Your task to perform on an android device: Find coffee shops on Maps Image 0: 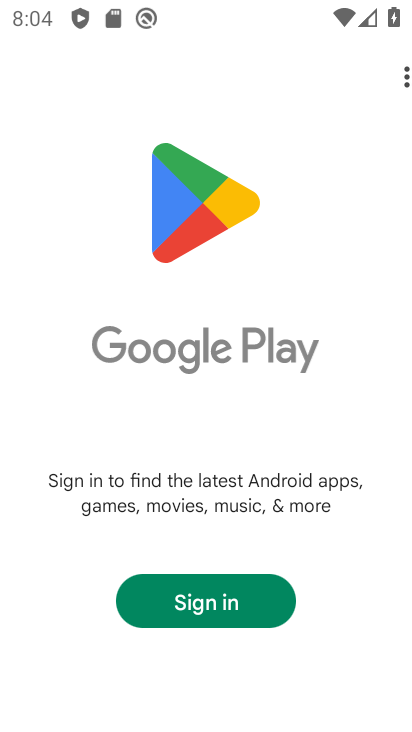
Step 0: press back button
Your task to perform on an android device: Find coffee shops on Maps Image 1: 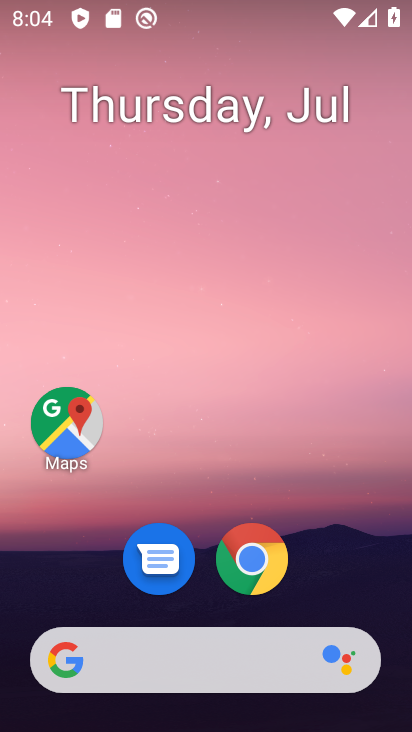
Step 1: click (69, 437)
Your task to perform on an android device: Find coffee shops on Maps Image 2: 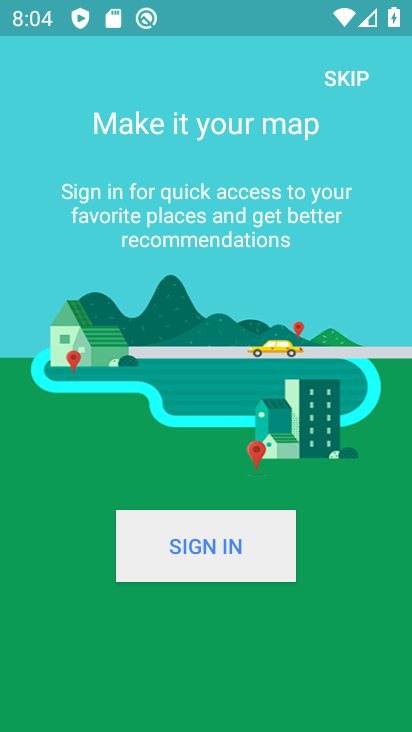
Step 2: click (352, 84)
Your task to perform on an android device: Find coffee shops on Maps Image 3: 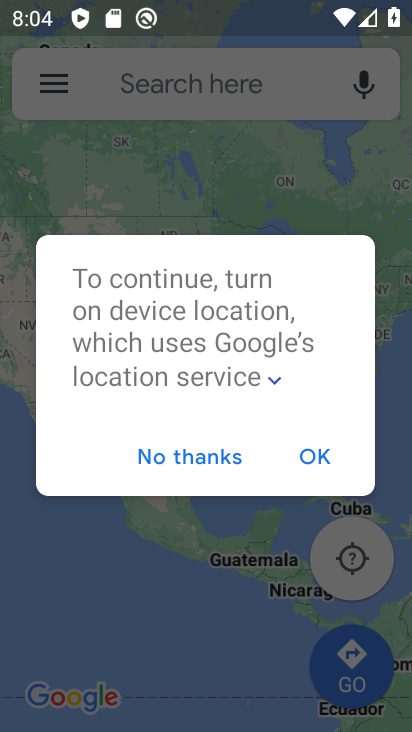
Step 3: click (187, 448)
Your task to perform on an android device: Find coffee shops on Maps Image 4: 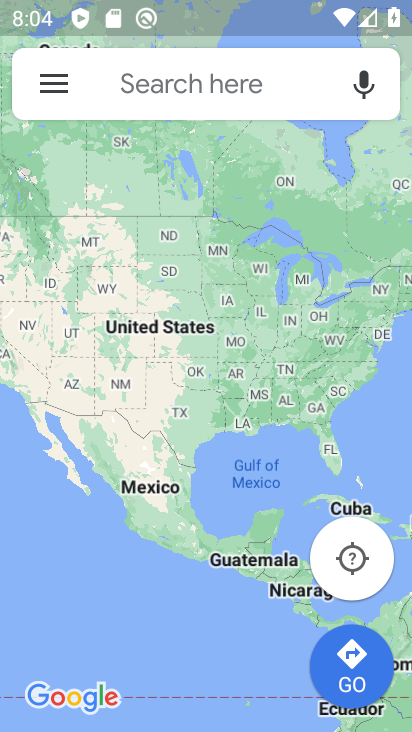
Step 4: click (196, 92)
Your task to perform on an android device: Find coffee shops on Maps Image 5: 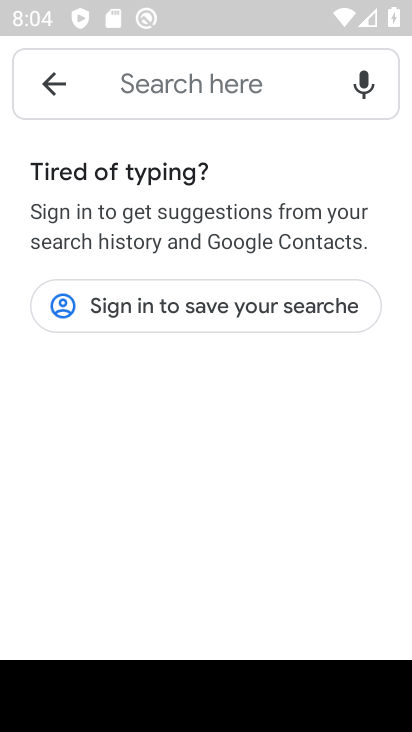
Step 5: type "coffee shops"
Your task to perform on an android device: Find coffee shops on Maps Image 6: 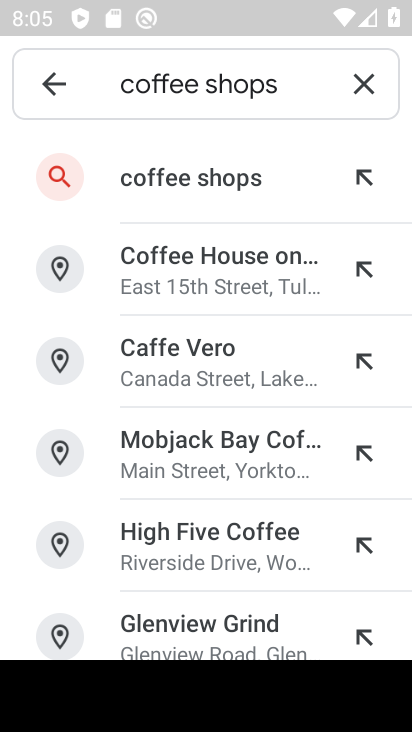
Step 6: click (223, 168)
Your task to perform on an android device: Find coffee shops on Maps Image 7: 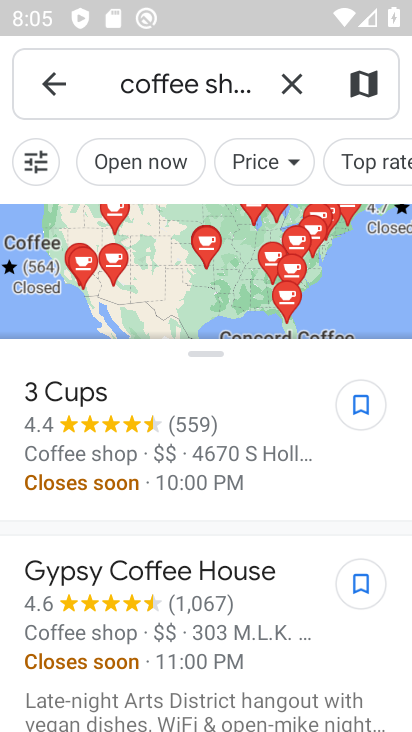
Step 7: task complete